Your task to perform on an android device: add a label to a message in the gmail app Image 0: 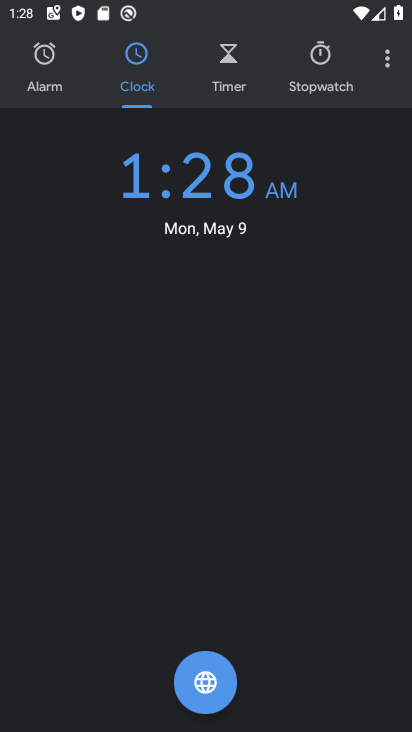
Step 0: press home button
Your task to perform on an android device: add a label to a message in the gmail app Image 1: 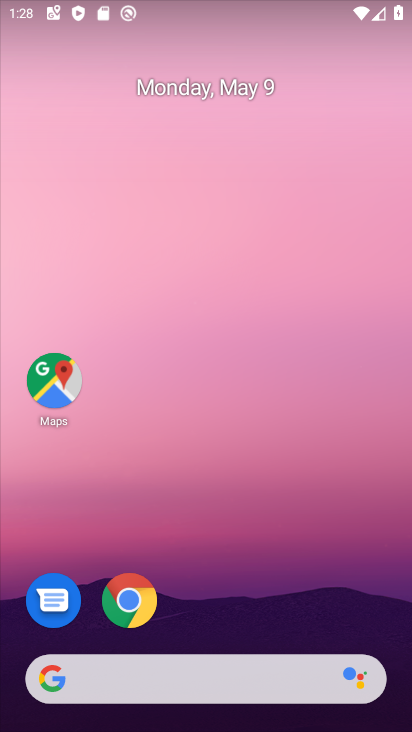
Step 1: click (199, 685)
Your task to perform on an android device: add a label to a message in the gmail app Image 2: 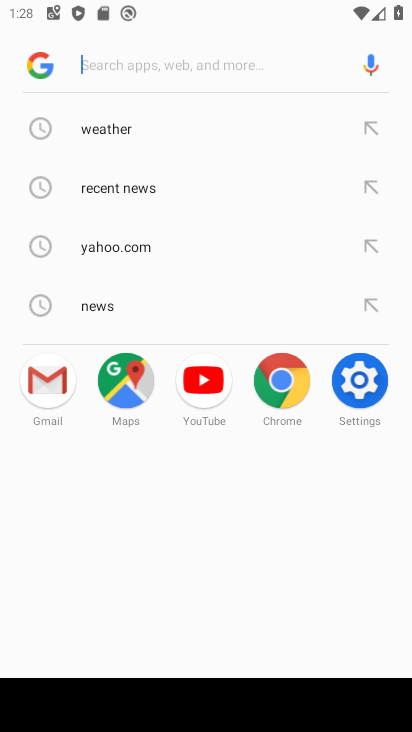
Step 2: click (204, 124)
Your task to perform on an android device: add a label to a message in the gmail app Image 3: 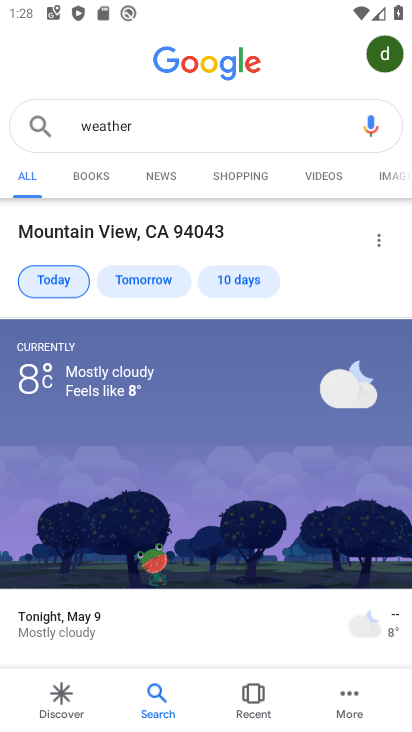
Step 3: task complete